Your task to perform on an android device: remove spam from my inbox in the gmail app Image 0: 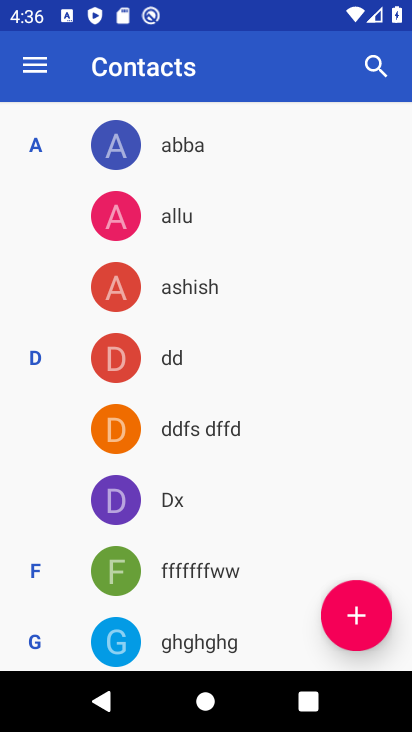
Step 0: press home button
Your task to perform on an android device: remove spam from my inbox in the gmail app Image 1: 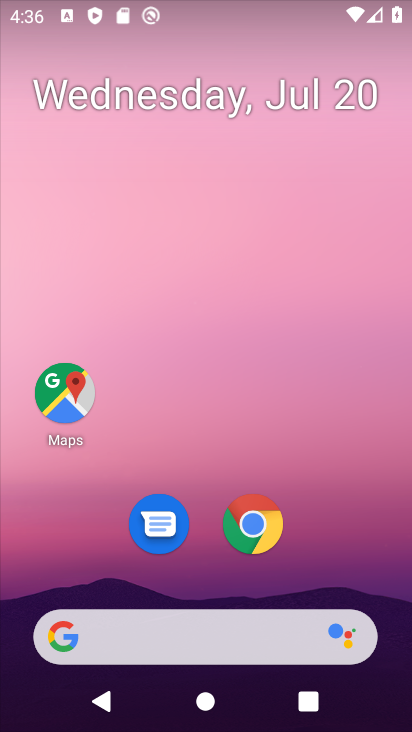
Step 1: drag from (320, 500) to (319, 18)
Your task to perform on an android device: remove spam from my inbox in the gmail app Image 2: 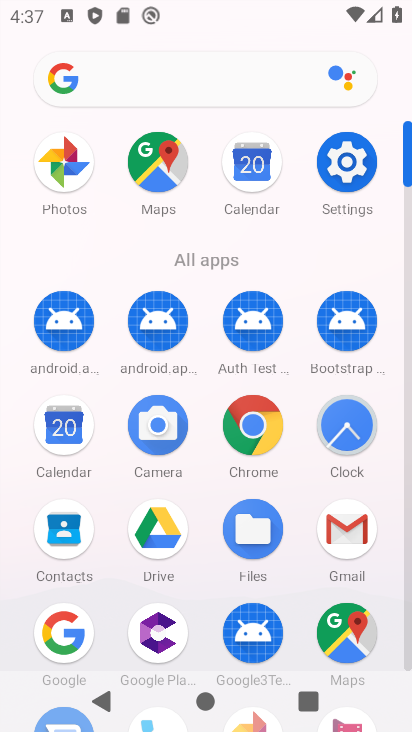
Step 2: click (355, 530)
Your task to perform on an android device: remove spam from my inbox in the gmail app Image 3: 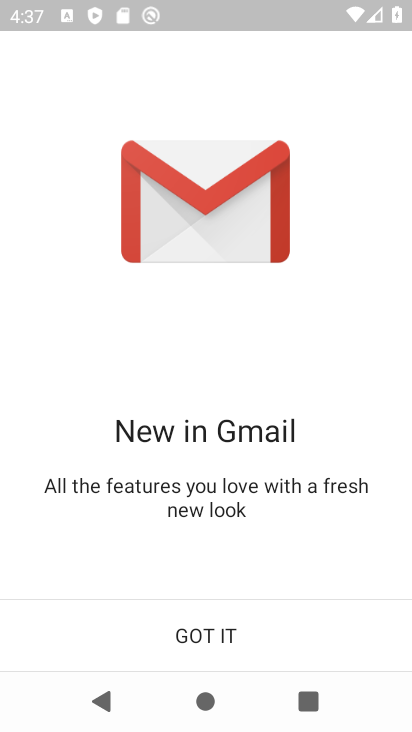
Step 3: click (235, 605)
Your task to perform on an android device: remove spam from my inbox in the gmail app Image 4: 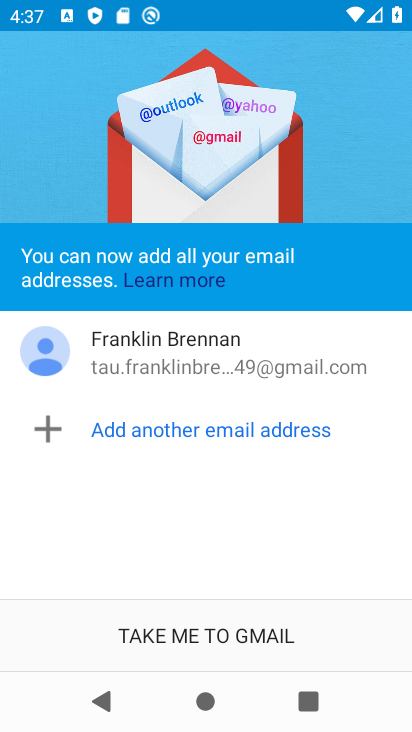
Step 4: click (235, 647)
Your task to perform on an android device: remove spam from my inbox in the gmail app Image 5: 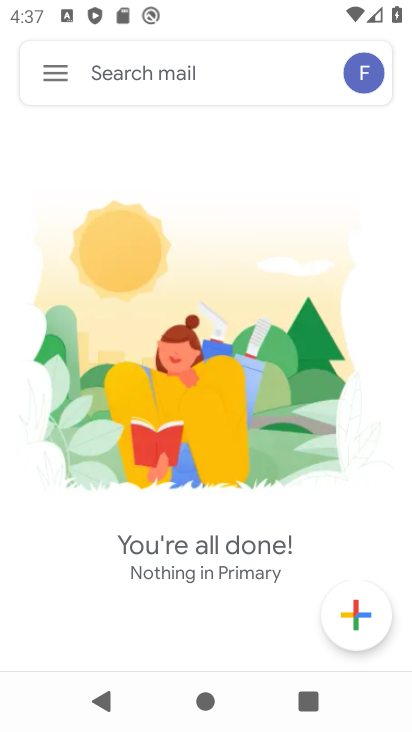
Step 5: click (56, 72)
Your task to perform on an android device: remove spam from my inbox in the gmail app Image 6: 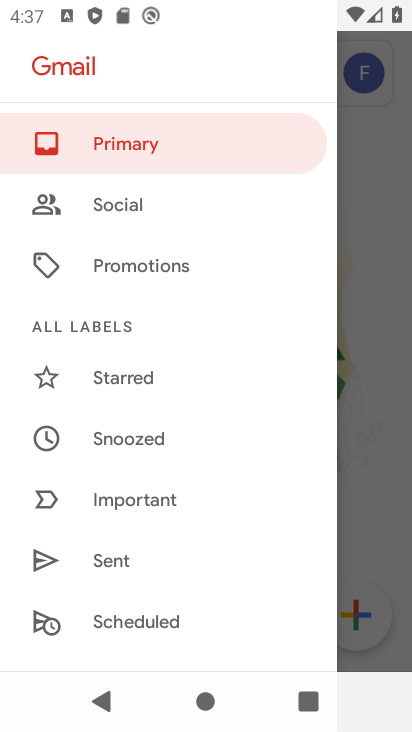
Step 6: click (104, 192)
Your task to perform on an android device: remove spam from my inbox in the gmail app Image 7: 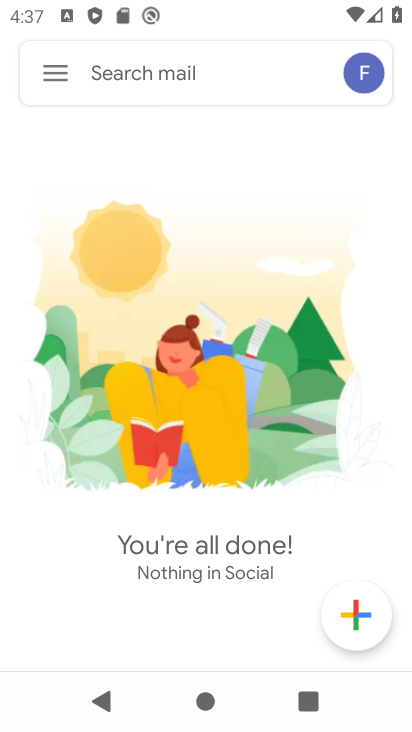
Step 7: click (61, 74)
Your task to perform on an android device: remove spam from my inbox in the gmail app Image 8: 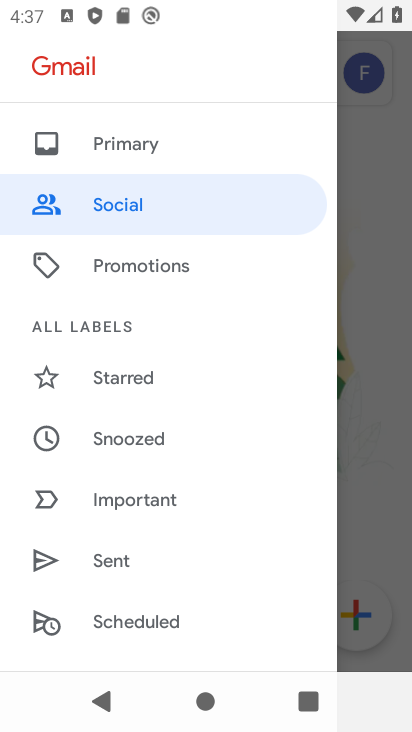
Step 8: click (129, 257)
Your task to perform on an android device: remove spam from my inbox in the gmail app Image 9: 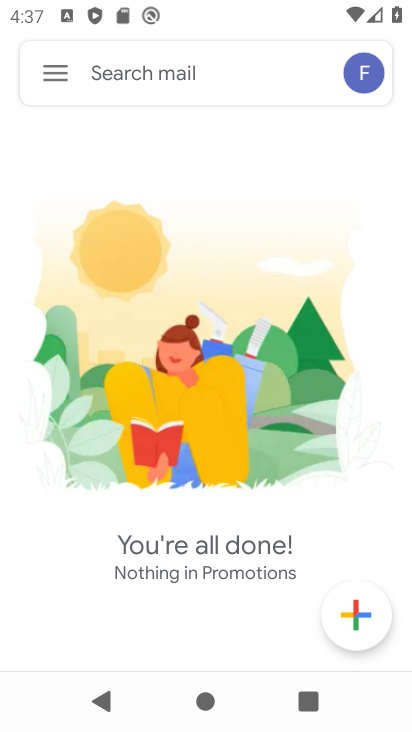
Step 9: task complete